Your task to perform on an android device: Go to Android settings Image 0: 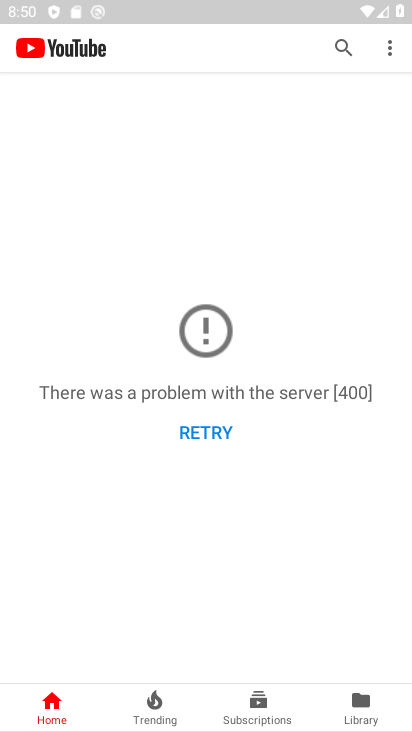
Step 0: task complete